Your task to perform on an android device: Open calendar and show me the second week of next month Image 0: 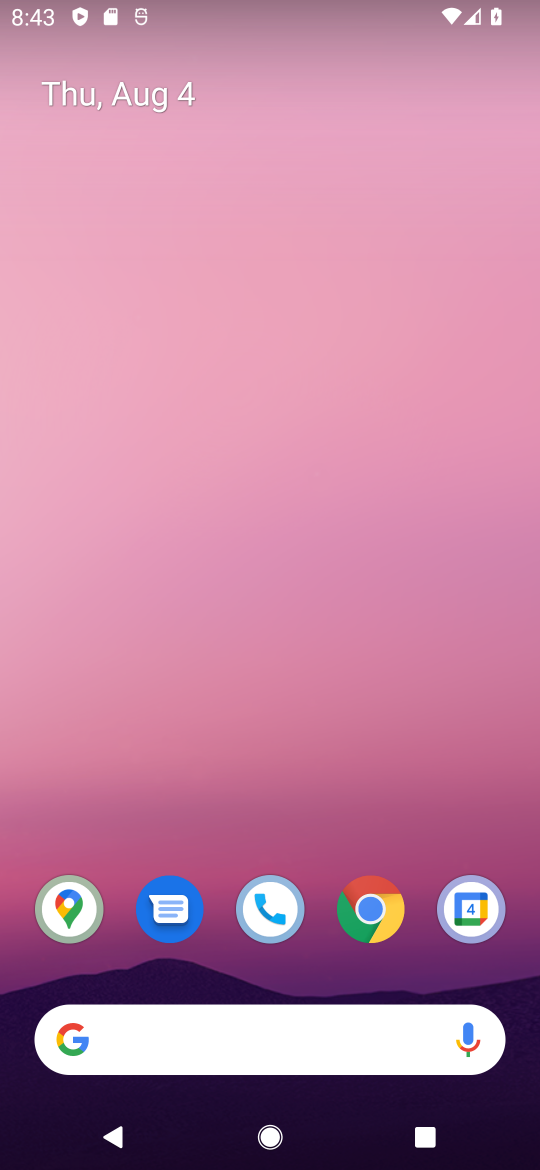
Step 0: press home button
Your task to perform on an android device: Open calendar and show me the second week of next month Image 1: 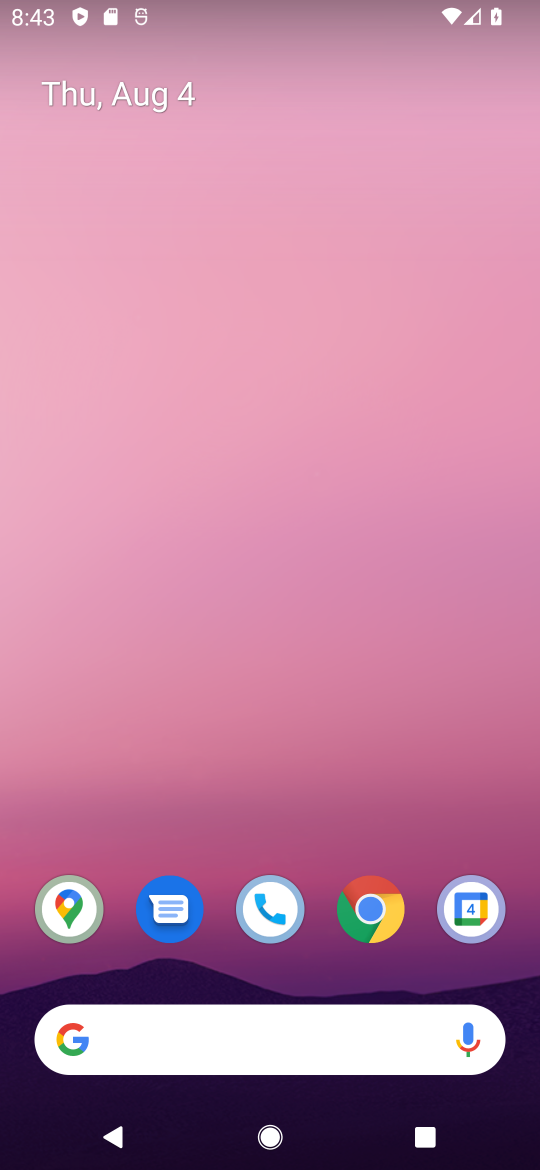
Step 1: drag from (319, 830) to (285, 234)
Your task to perform on an android device: Open calendar and show me the second week of next month Image 2: 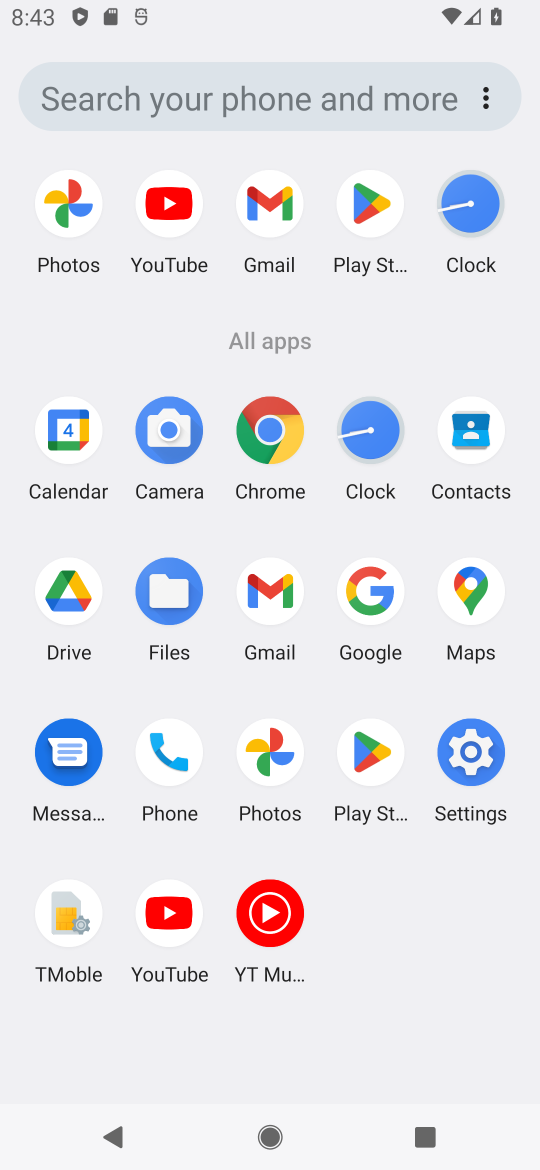
Step 2: click (69, 440)
Your task to perform on an android device: Open calendar and show me the second week of next month Image 3: 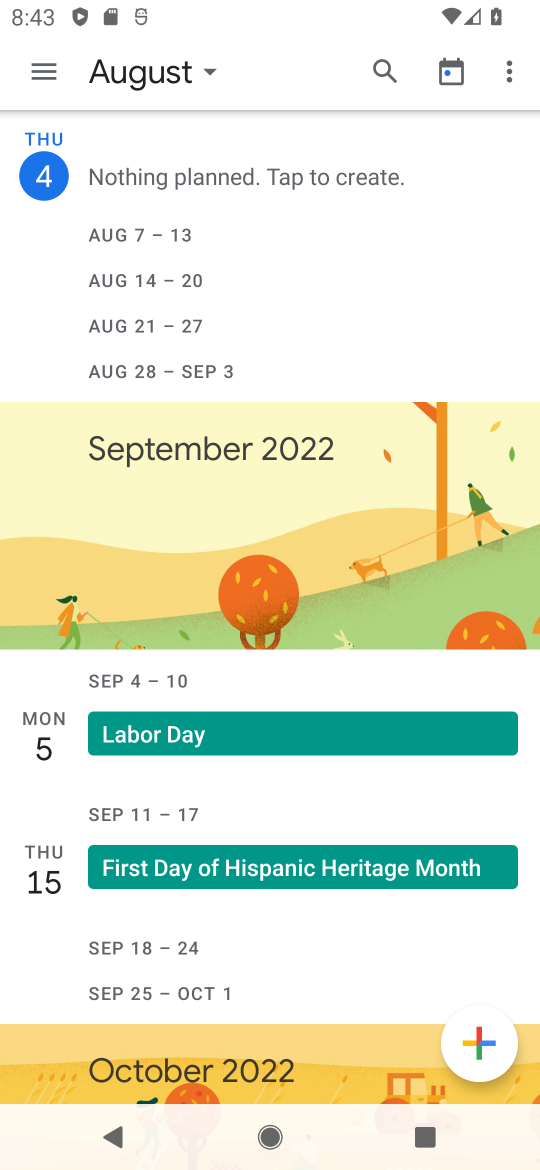
Step 3: click (212, 74)
Your task to perform on an android device: Open calendar and show me the second week of next month Image 4: 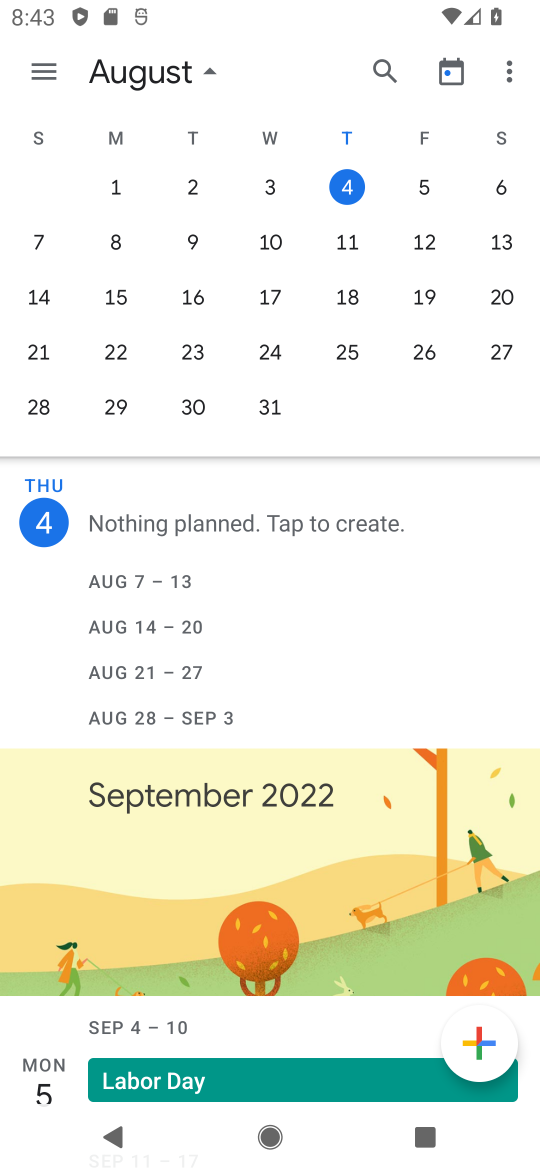
Step 4: drag from (527, 205) to (1, 206)
Your task to perform on an android device: Open calendar and show me the second week of next month Image 5: 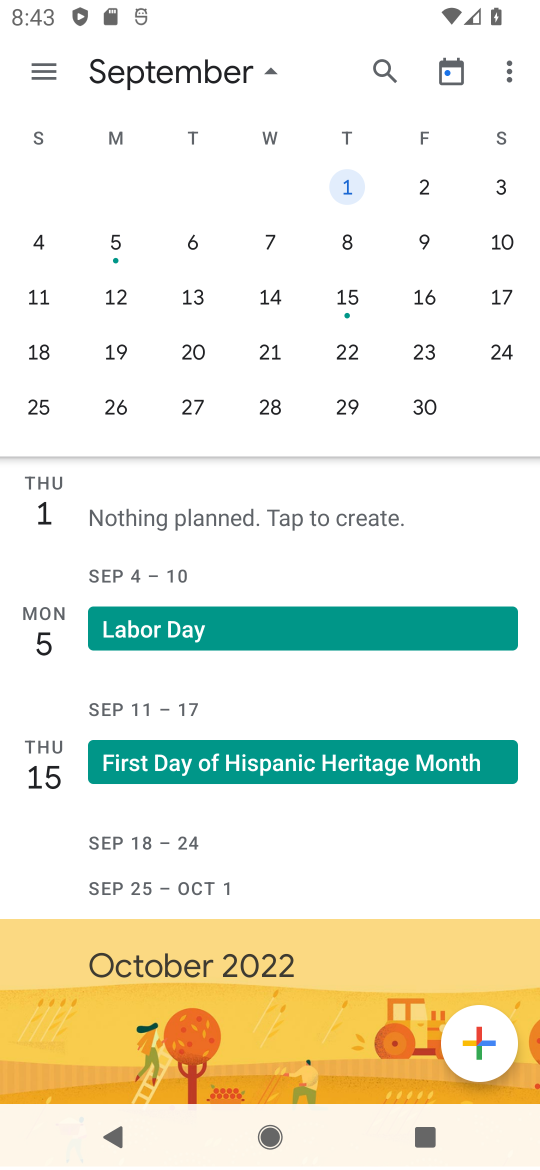
Step 5: click (122, 247)
Your task to perform on an android device: Open calendar and show me the second week of next month Image 6: 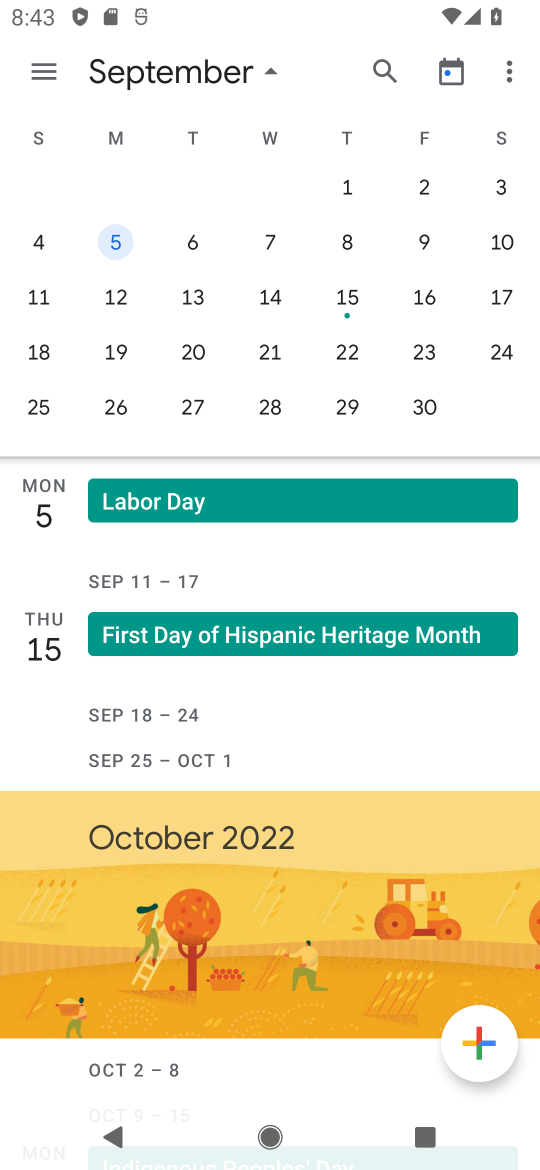
Step 6: task complete